Your task to perform on an android device: check battery use Image 0: 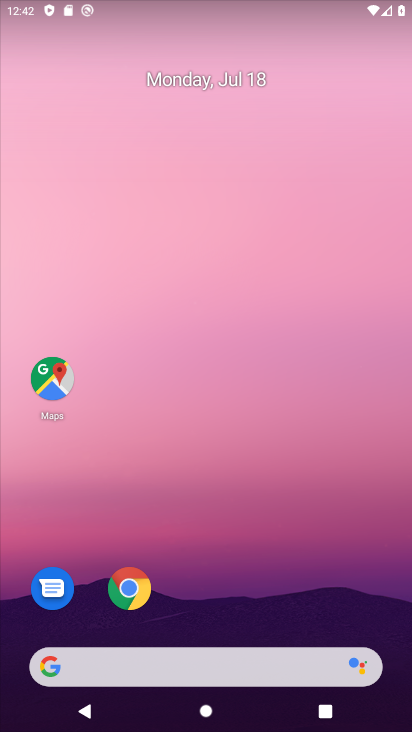
Step 0: drag from (224, 470) to (253, 230)
Your task to perform on an android device: check battery use Image 1: 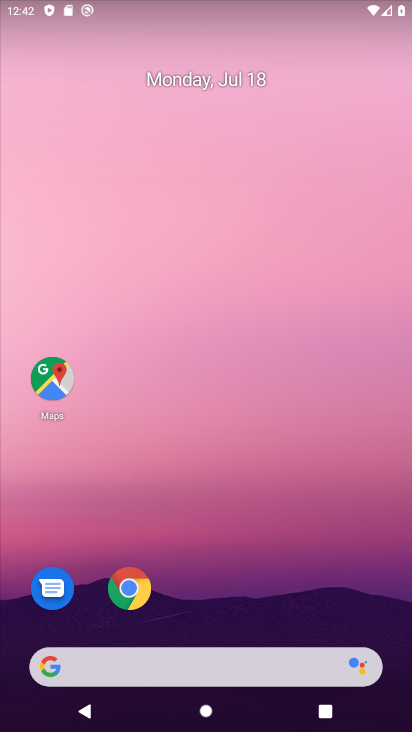
Step 1: drag from (310, 507) to (347, 112)
Your task to perform on an android device: check battery use Image 2: 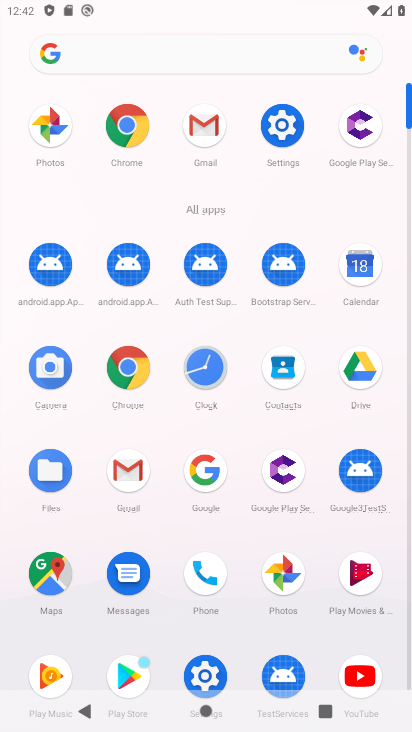
Step 2: click (286, 127)
Your task to perform on an android device: check battery use Image 3: 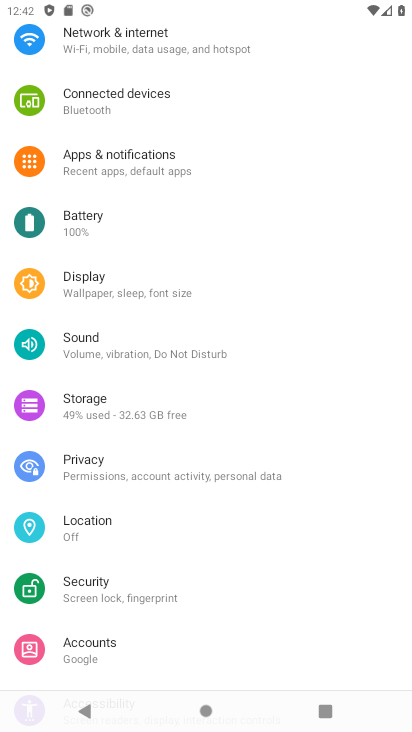
Step 3: click (113, 215)
Your task to perform on an android device: check battery use Image 4: 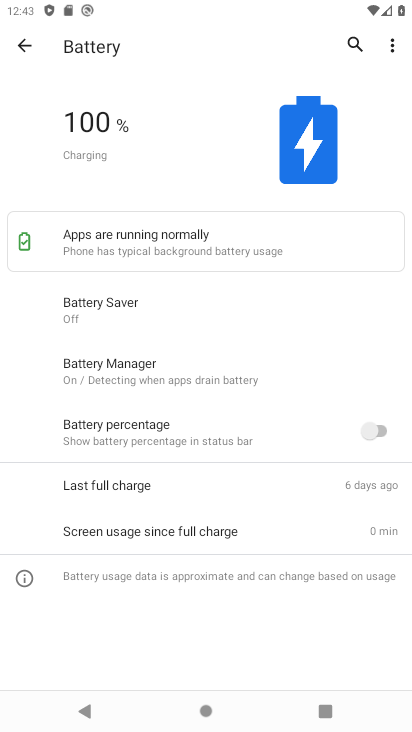
Step 4: task complete